Your task to perform on an android device: Open Google Maps and go to "Timeline" Image 0: 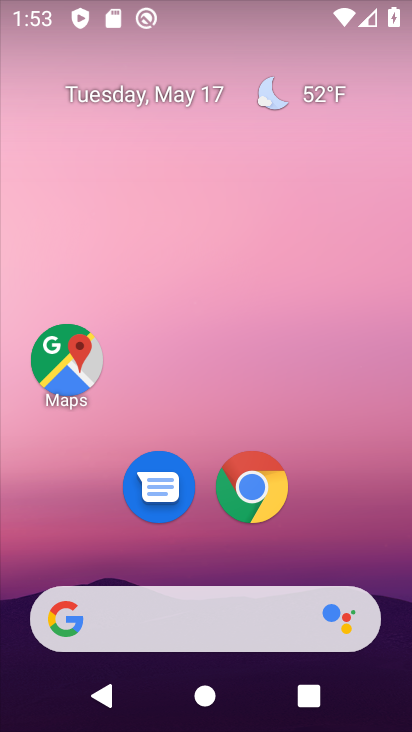
Step 0: click (69, 394)
Your task to perform on an android device: Open Google Maps and go to "Timeline" Image 1: 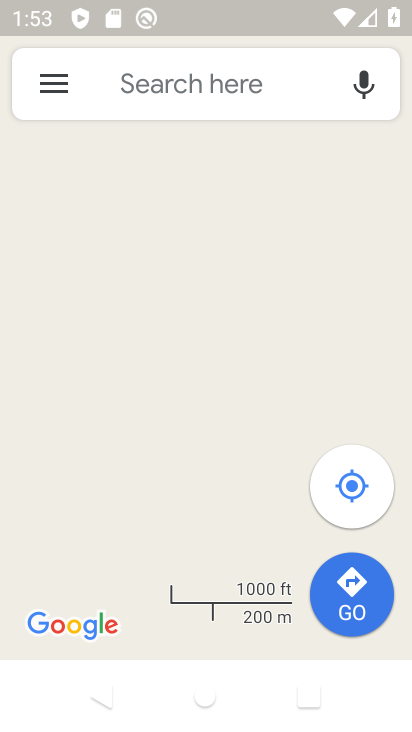
Step 1: click (46, 79)
Your task to perform on an android device: Open Google Maps and go to "Timeline" Image 2: 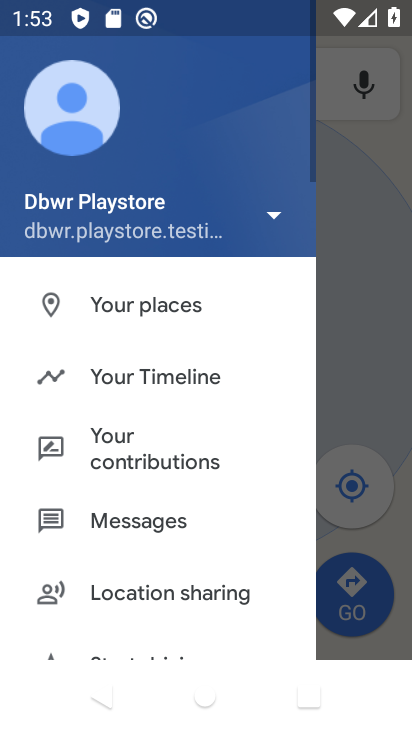
Step 2: click (138, 382)
Your task to perform on an android device: Open Google Maps and go to "Timeline" Image 3: 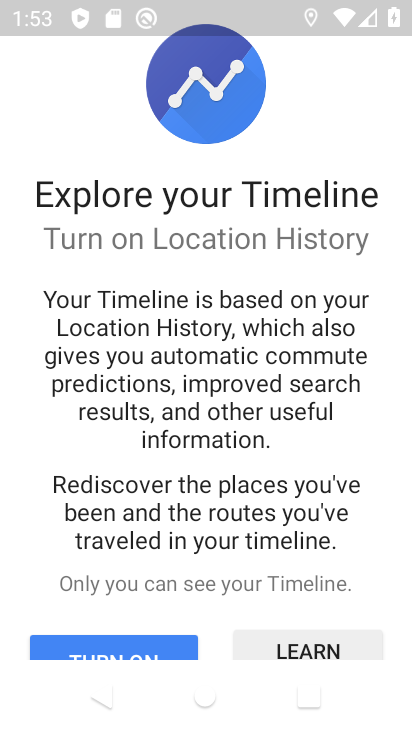
Step 3: task complete